Your task to perform on an android device: turn pop-ups on in chrome Image 0: 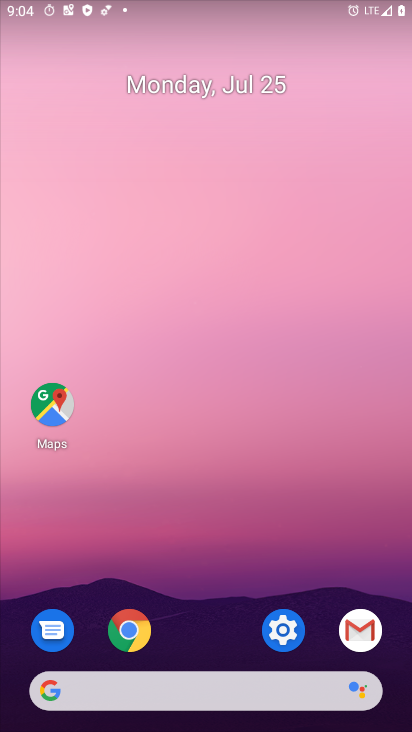
Step 0: press home button
Your task to perform on an android device: turn pop-ups on in chrome Image 1: 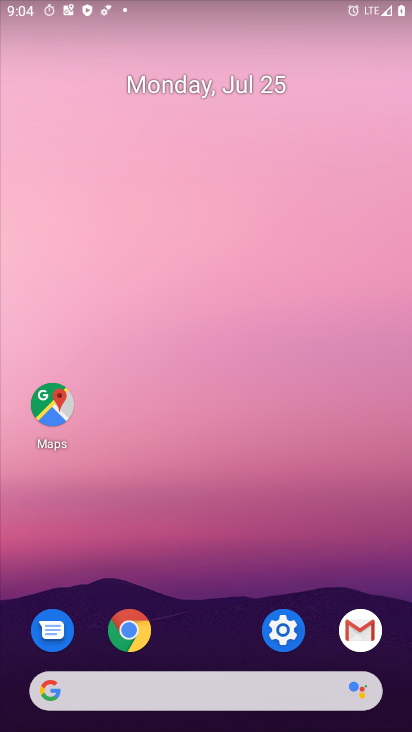
Step 1: click (125, 628)
Your task to perform on an android device: turn pop-ups on in chrome Image 2: 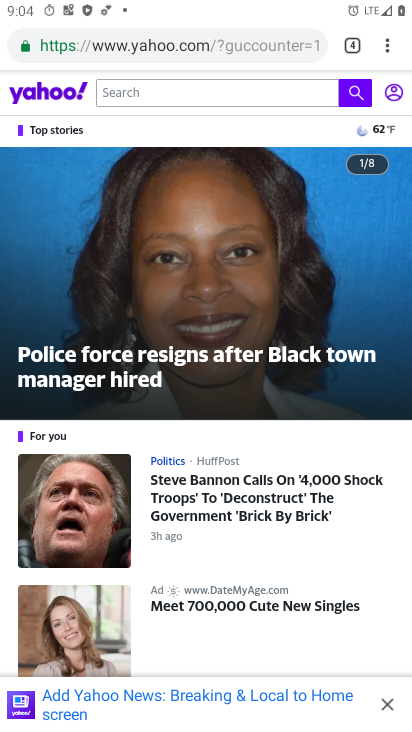
Step 2: click (391, 45)
Your task to perform on an android device: turn pop-ups on in chrome Image 3: 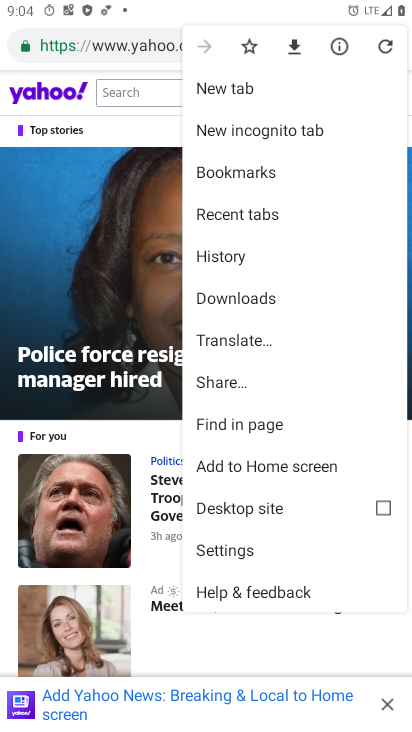
Step 3: click (220, 544)
Your task to perform on an android device: turn pop-ups on in chrome Image 4: 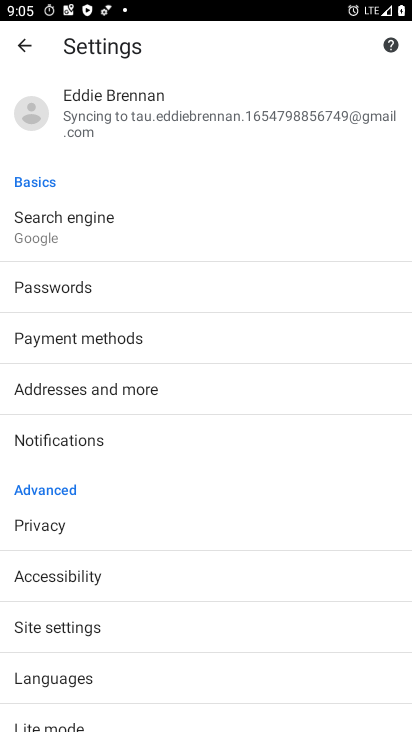
Step 4: click (78, 628)
Your task to perform on an android device: turn pop-ups on in chrome Image 5: 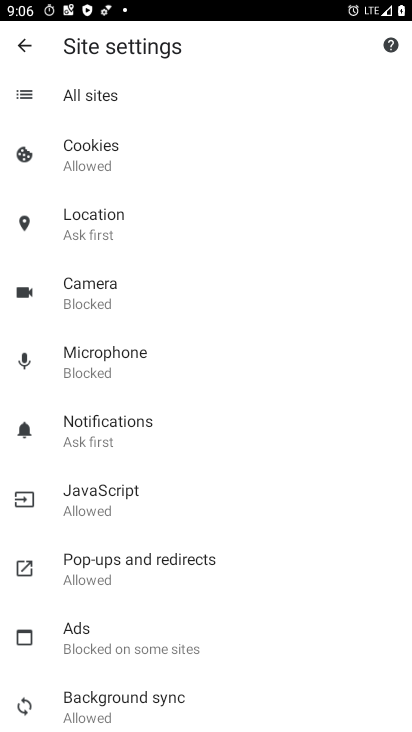
Step 5: click (130, 556)
Your task to perform on an android device: turn pop-ups on in chrome Image 6: 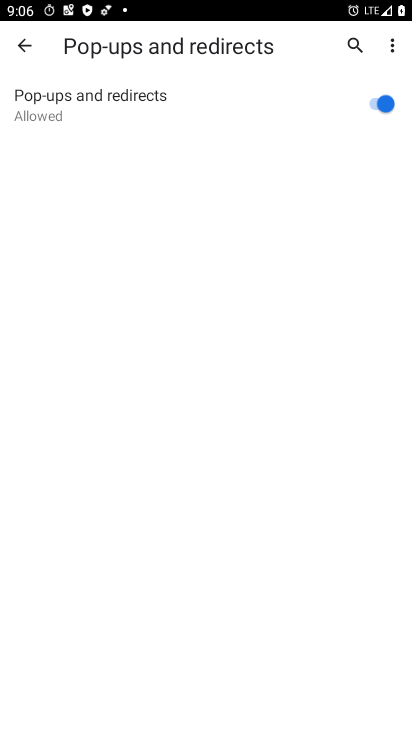
Step 6: task complete